Your task to perform on an android device: Go to Android settings Image 0: 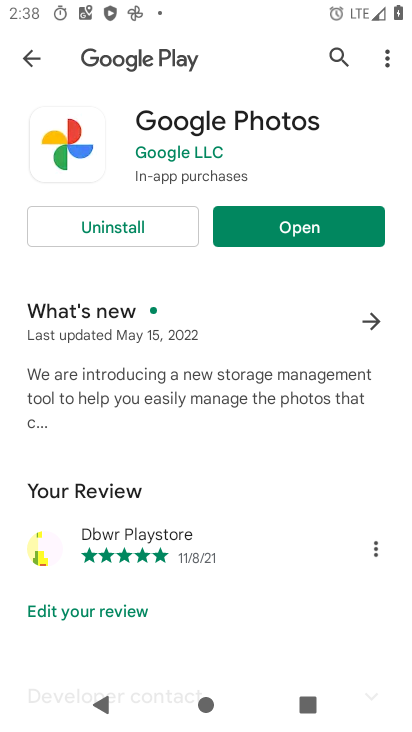
Step 0: press home button
Your task to perform on an android device: Go to Android settings Image 1: 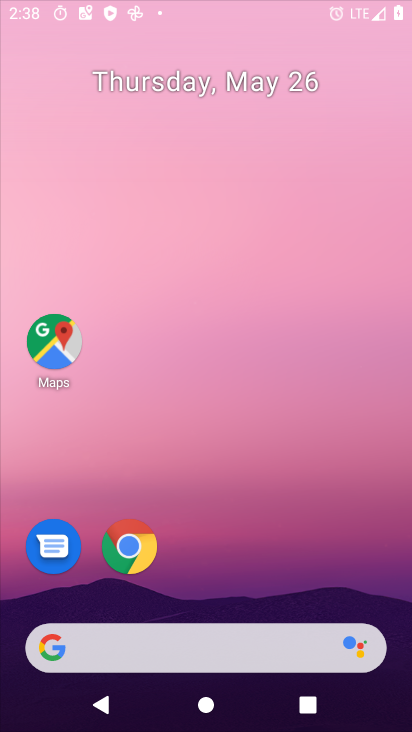
Step 1: drag from (218, 564) to (264, 83)
Your task to perform on an android device: Go to Android settings Image 2: 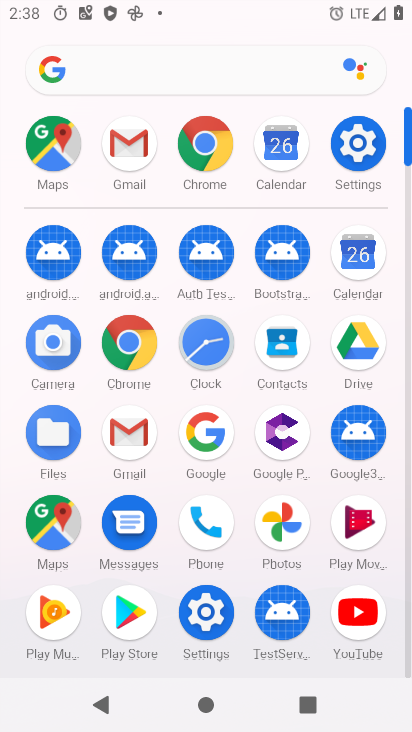
Step 2: click (362, 148)
Your task to perform on an android device: Go to Android settings Image 3: 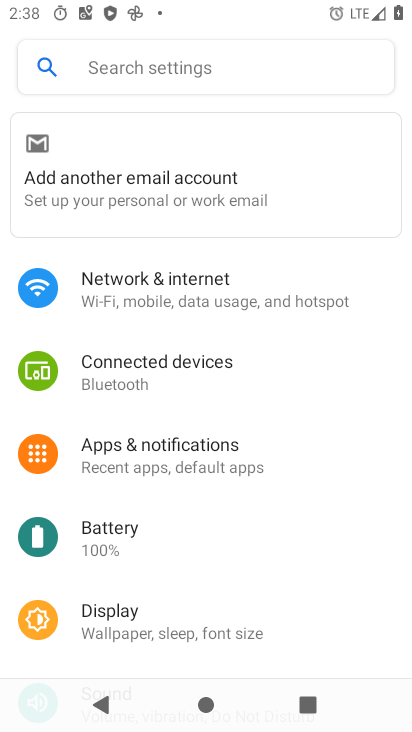
Step 3: task complete